Your task to perform on an android device: turn on improve location accuracy Image 0: 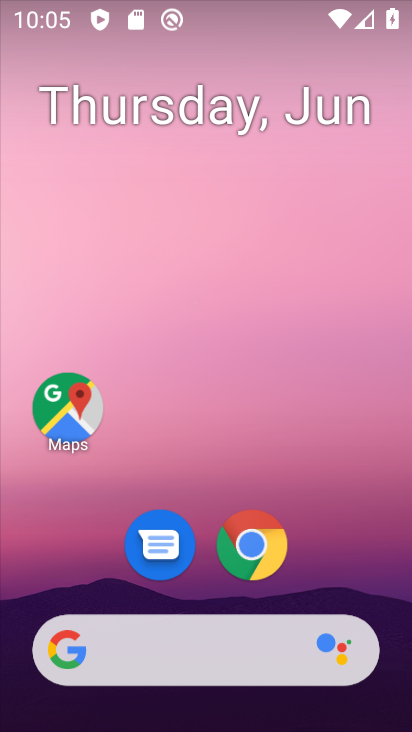
Step 0: drag from (187, 596) to (351, 74)
Your task to perform on an android device: turn on improve location accuracy Image 1: 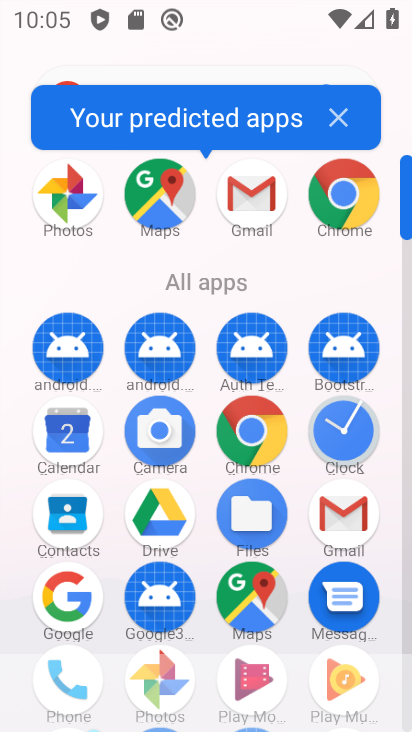
Step 1: drag from (216, 552) to (264, 181)
Your task to perform on an android device: turn on improve location accuracy Image 2: 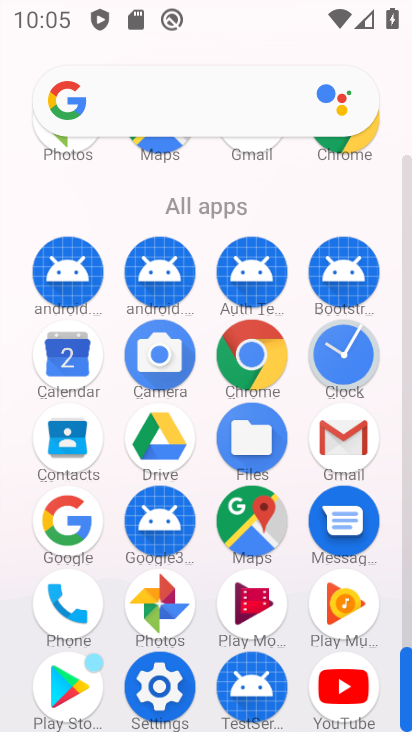
Step 2: click (149, 675)
Your task to perform on an android device: turn on improve location accuracy Image 3: 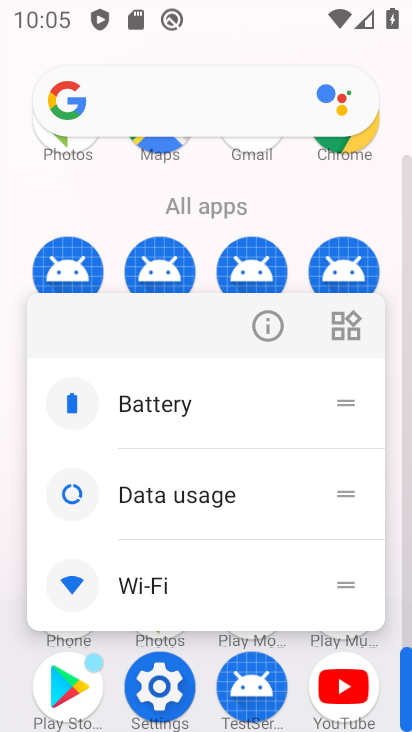
Step 3: click (154, 682)
Your task to perform on an android device: turn on improve location accuracy Image 4: 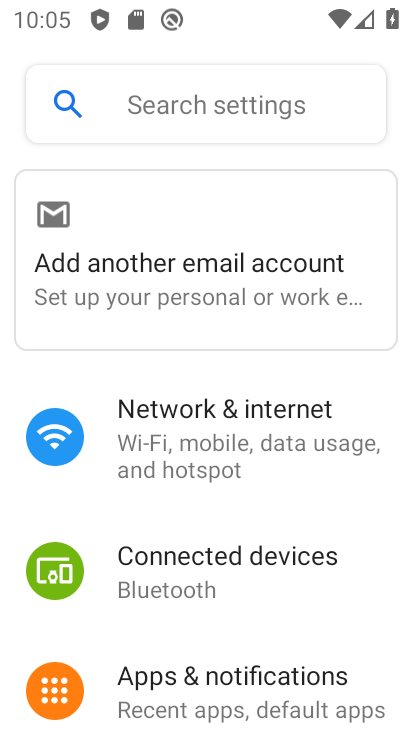
Step 4: drag from (248, 610) to (360, 49)
Your task to perform on an android device: turn on improve location accuracy Image 5: 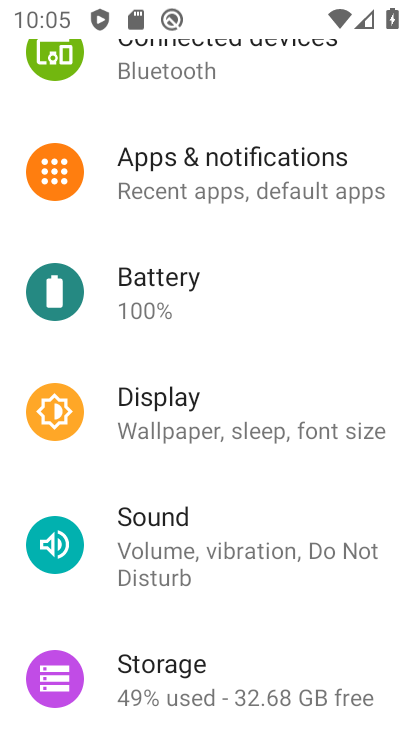
Step 5: drag from (238, 545) to (271, 120)
Your task to perform on an android device: turn on improve location accuracy Image 6: 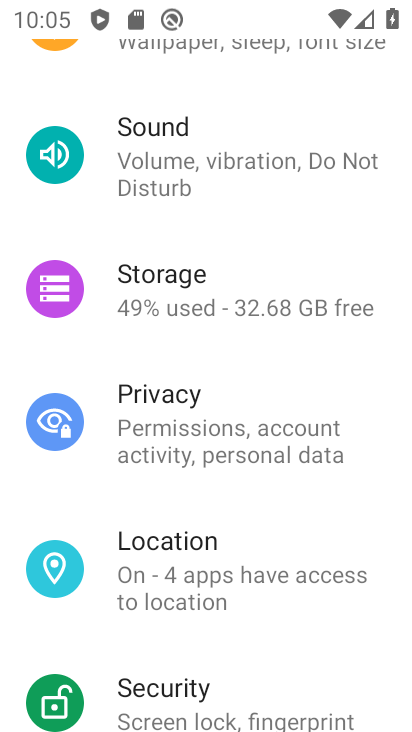
Step 6: click (204, 539)
Your task to perform on an android device: turn on improve location accuracy Image 7: 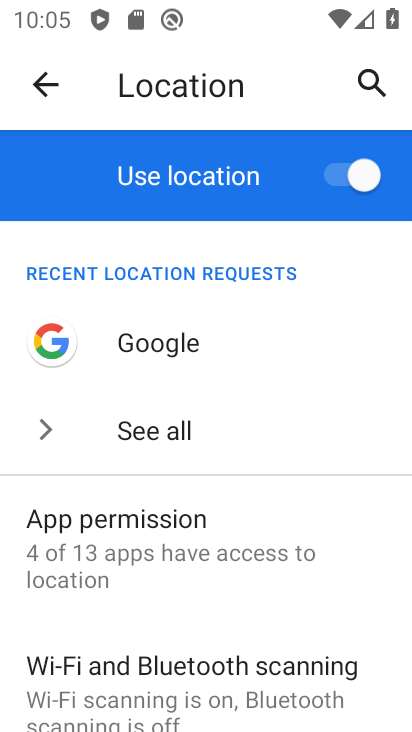
Step 7: drag from (227, 491) to (303, 127)
Your task to perform on an android device: turn on improve location accuracy Image 8: 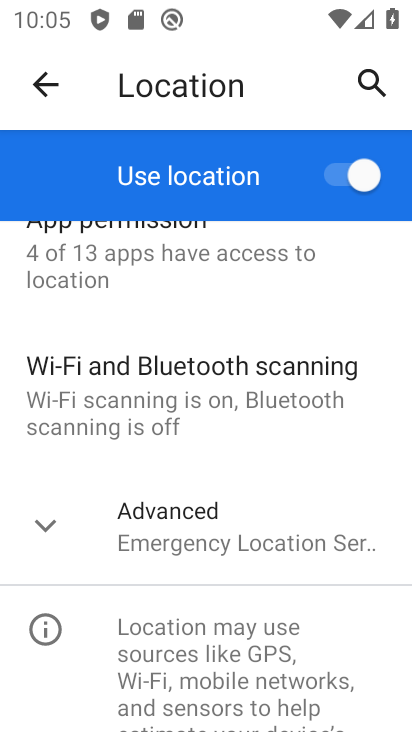
Step 8: click (206, 540)
Your task to perform on an android device: turn on improve location accuracy Image 9: 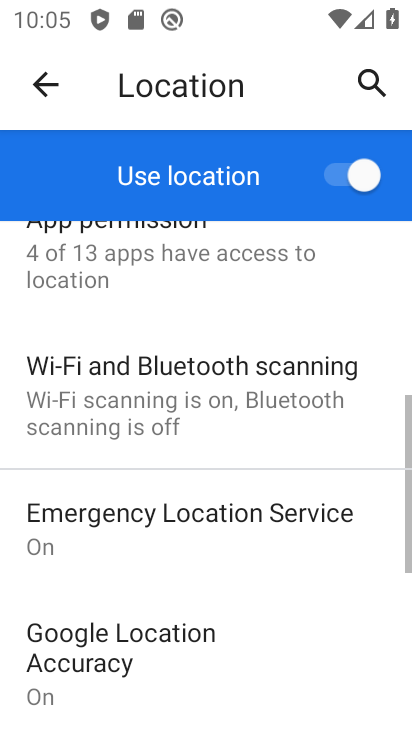
Step 9: drag from (206, 650) to (267, 325)
Your task to perform on an android device: turn on improve location accuracy Image 10: 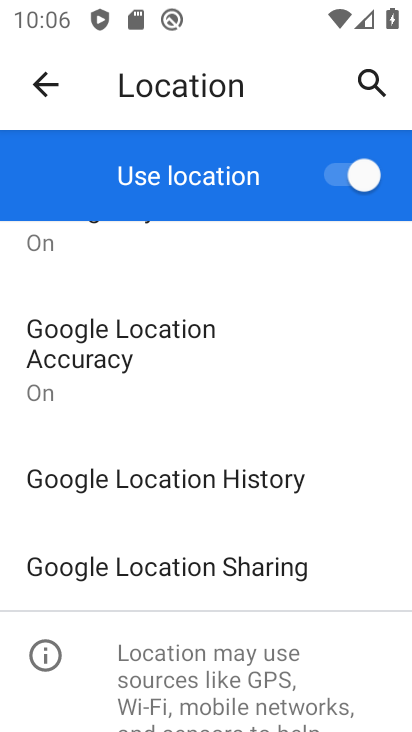
Step 10: click (128, 358)
Your task to perform on an android device: turn on improve location accuracy Image 11: 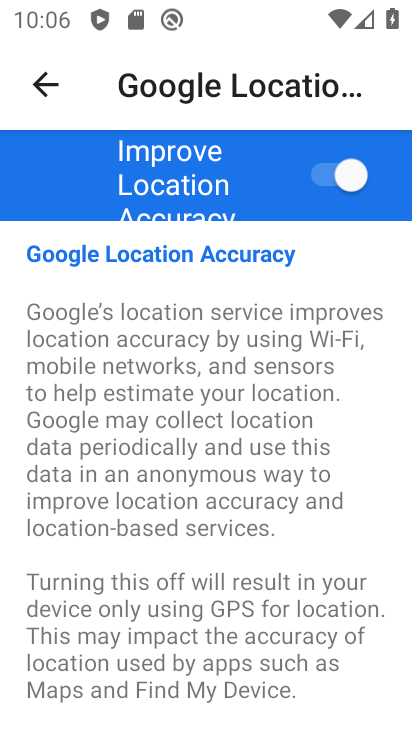
Step 11: task complete